Your task to perform on an android device: Open calendar and show me the fourth week of next month Image 0: 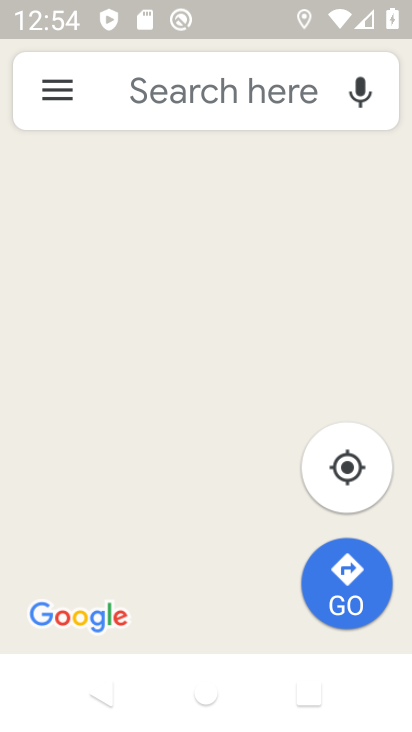
Step 0: press home button
Your task to perform on an android device: Open calendar and show me the fourth week of next month Image 1: 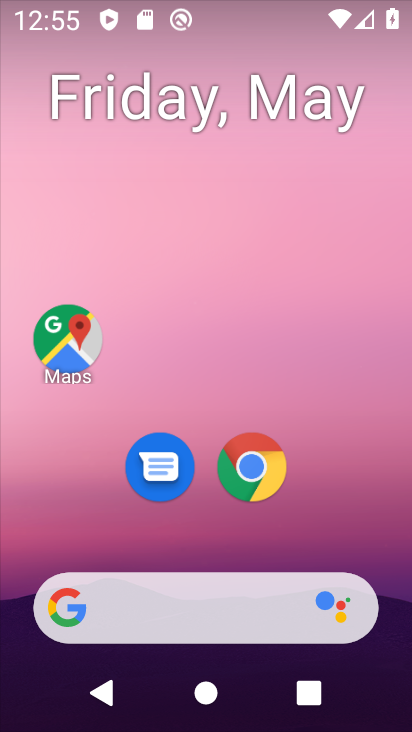
Step 1: drag from (268, 645) to (234, 216)
Your task to perform on an android device: Open calendar and show me the fourth week of next month Image 2: 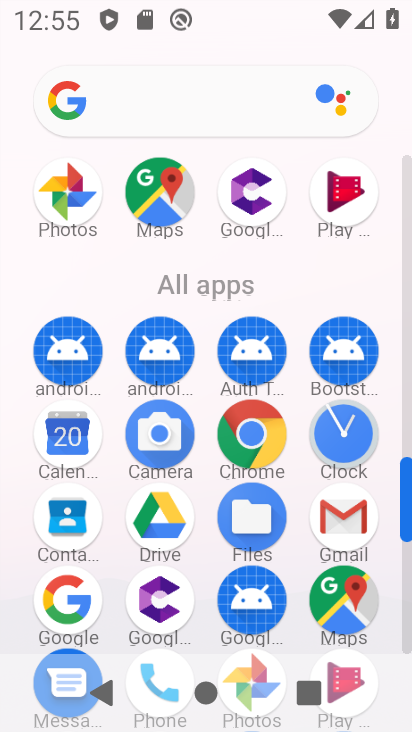
Step 2: click (76, 441)
Your task to perform on an android device: Open calendar and show me the fourth week of next month Image 3: 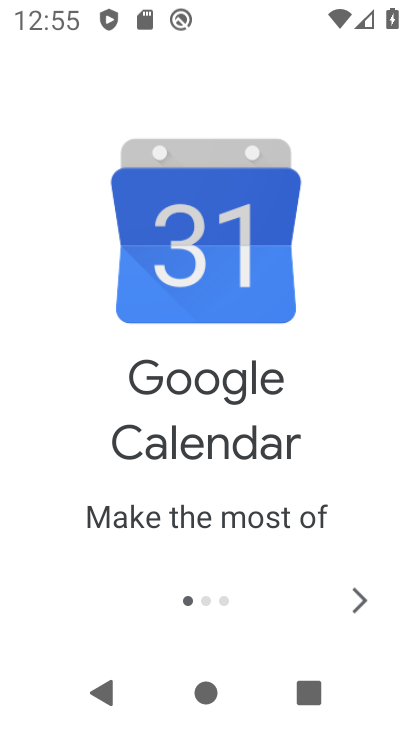
Step 3: click (337, 597)
Your task to perform on an android device: Open calendar and show me the fourth week of next month Image 4: 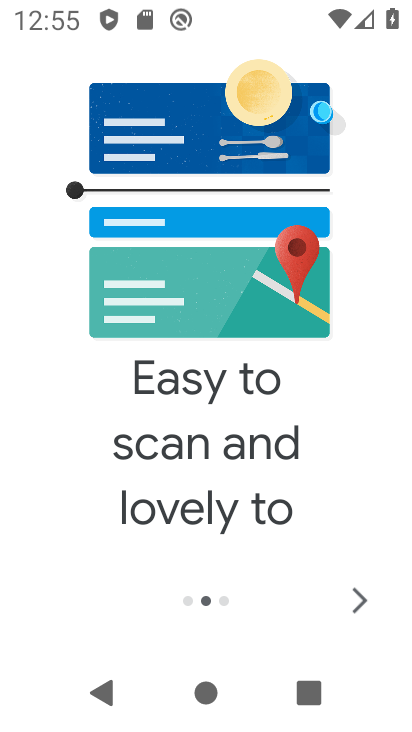
Step 4: click (347, 612)
Your task to perform on an android device: Open calendar and show me the fourth week of next month Image 5: 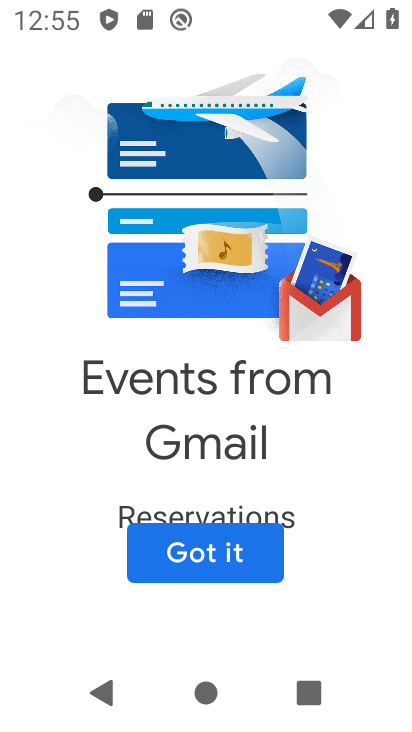
Step 5: click (254, 550)
Your task to perform on an android device: Open calendar and show me the fourth week of next month Image 6: 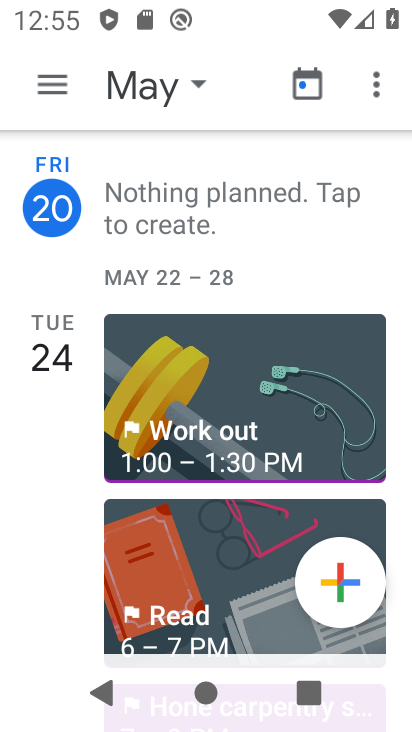
Step 6: click (40, 104)
Your task to perform on an android device: Open calendar and show me the fourth week of next month Image 7: 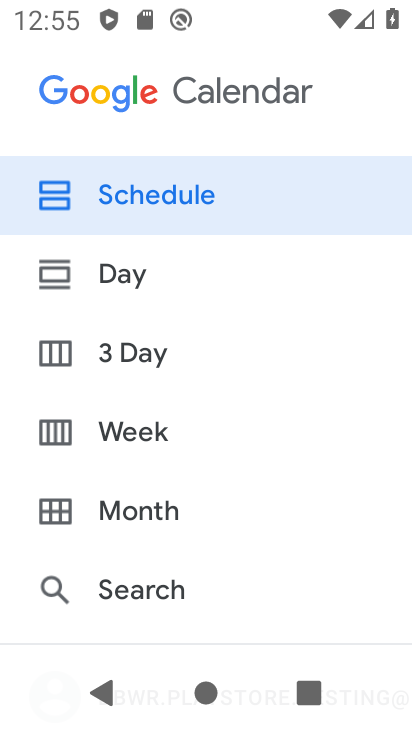
Step 7: click (149, 509)
Your task to perform on an android device: Open calendar and show me the fourth week of next month Image 8: 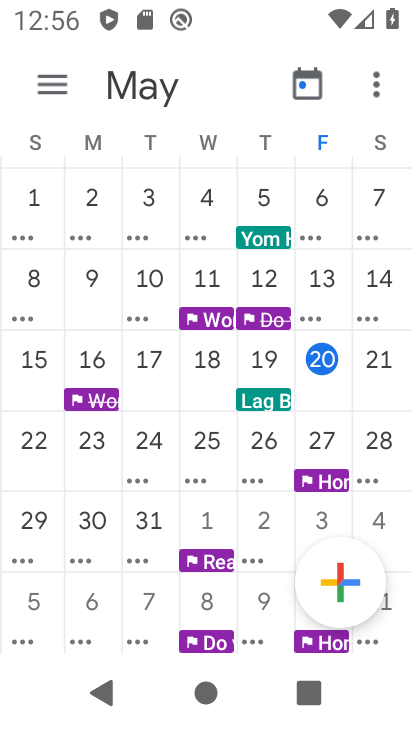
Step 8: drag from (376, 469) to (0, 364)
Your task to perform on an android device: Open calendar and show me the fourth week of next month Image 9: 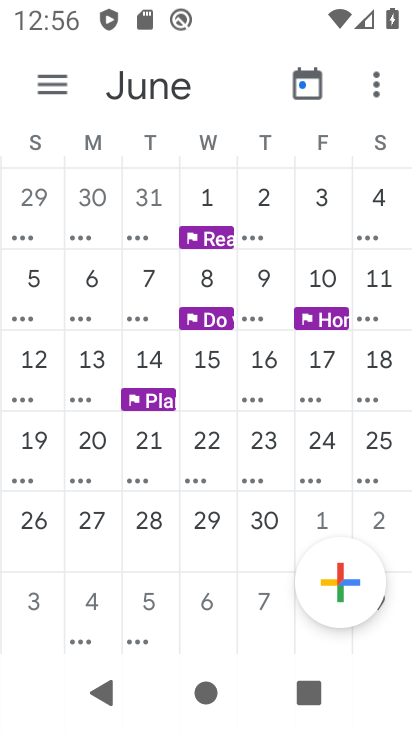
Step 9: click (84, 445)
Your task to perform on an android device: Open calendar and show me the fourth week of next month Image 10: 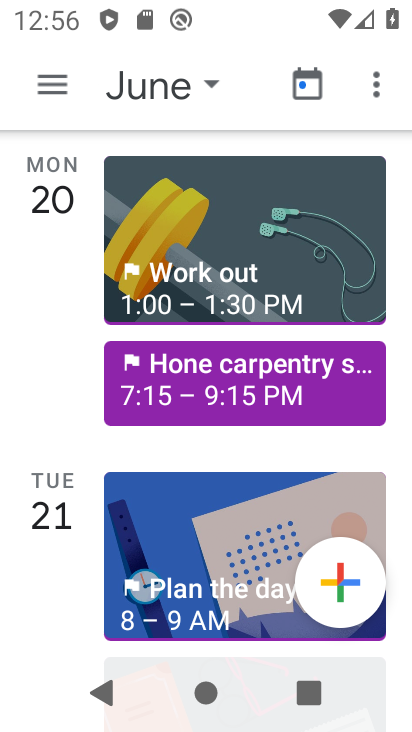
Step 10: task complete